Your task to perform on an android device: Open Wikipedia Image 0: 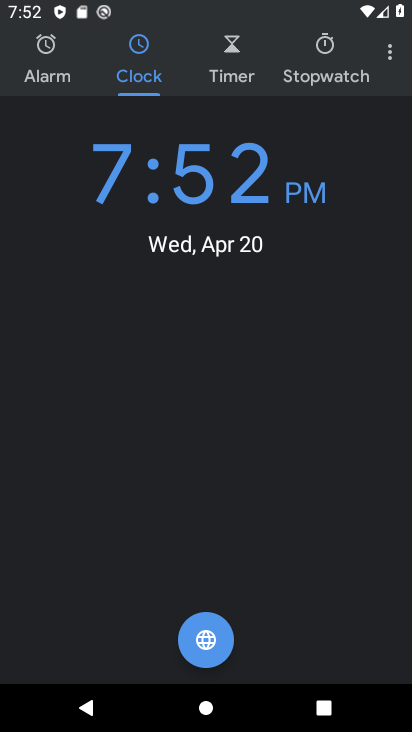
Step 0: press home button
Your task to perform on an android device: Open Wikipedia Image 1: 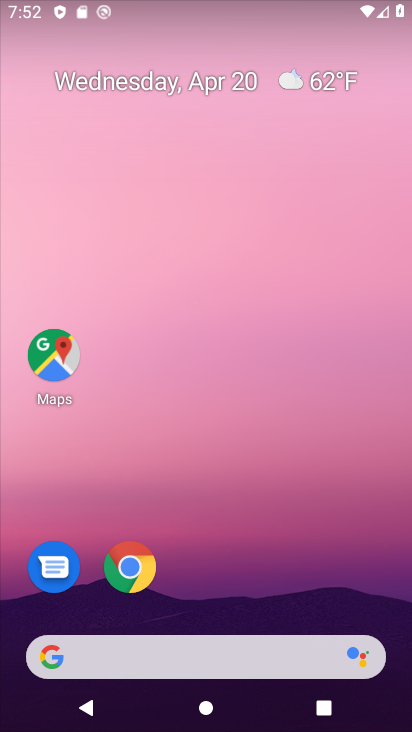
Step 1: drag from (320, 537) to (330, 111)
Your task to perform on an android device: Open Wikipedia Image 2: 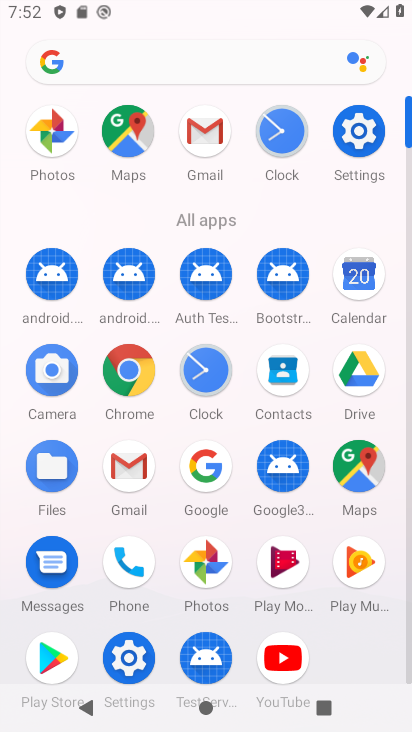
Step 2: click (116, 387)
Your task to perform on an android device: Open Wikipedia Image 3: 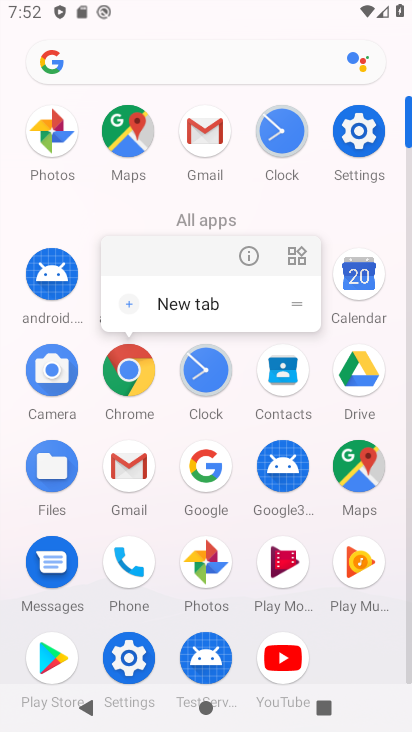
Step 3: click (117, 380)
Your task to perform on an android device: Open Wikipedia Image 4: 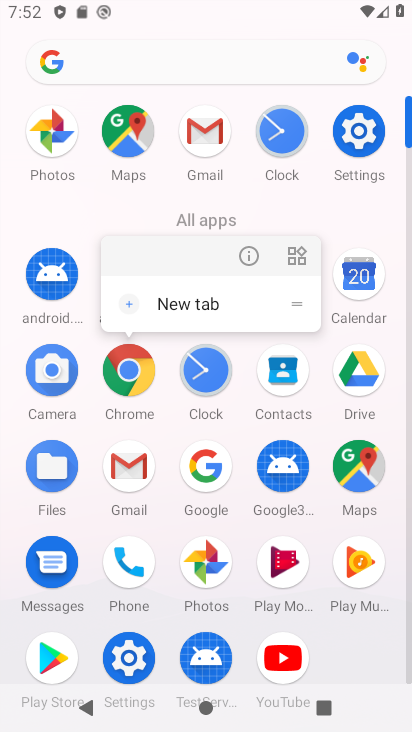
Step 4: click (118, 379)
Your task to perform on an android device: Open Wikipedia Image 5: 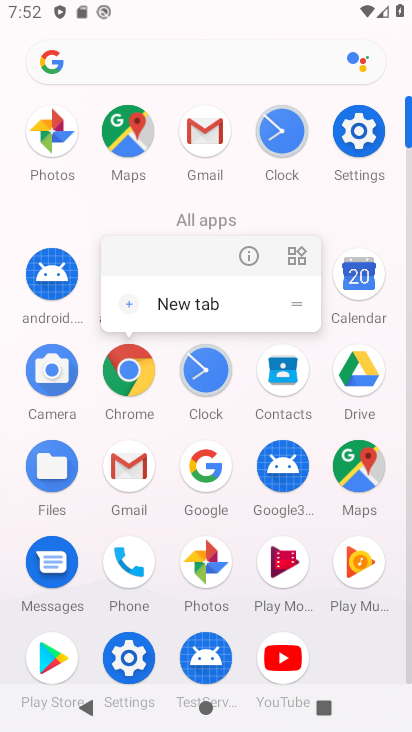
Step 5: click (118, 379)
Your task to perform on an android device: Open Wikipedia Image 6: 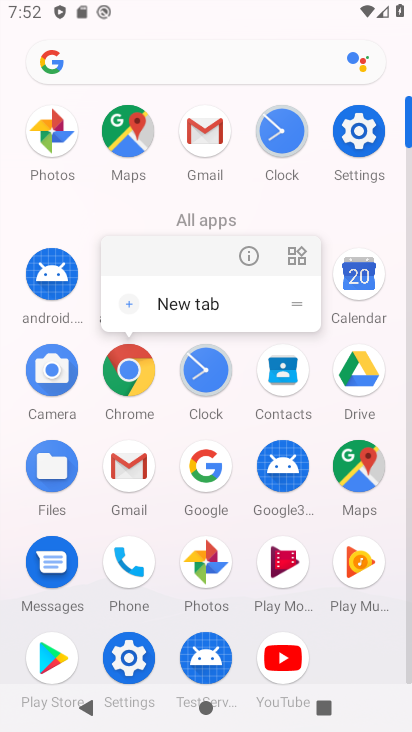
Step 6: click (118, 379)
Your task to perform on an android device: Open Wikipedia Image 7: 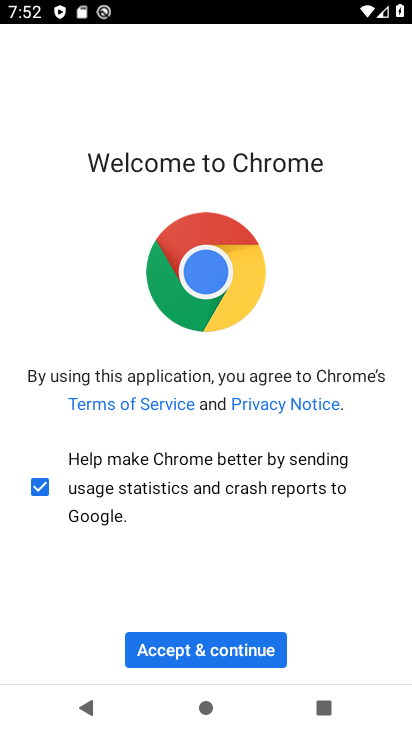
Step 7: click (256, 655)
Your task to perform on an android device: Open Wikipedia Image 8: 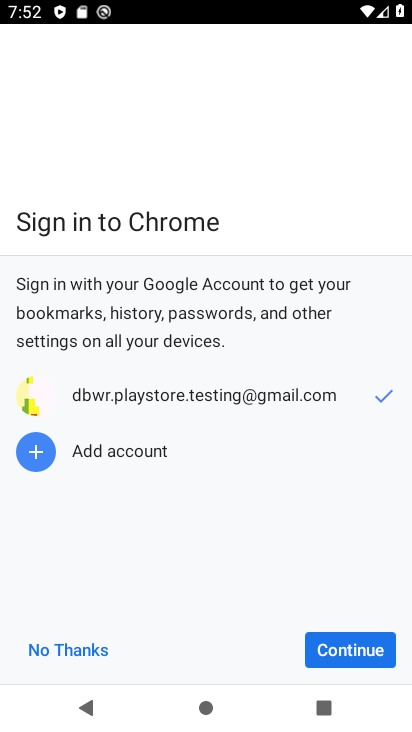
Step 8: click (55, 653)
Your task to perform on an android device: Open Wikipedia Image 9: 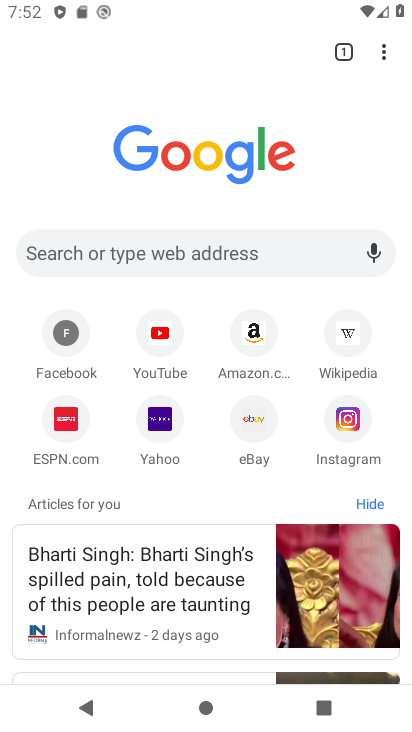
Step 9: click (351, 331)
Your task to perform on an android device: Open Wikipedia Image 10: 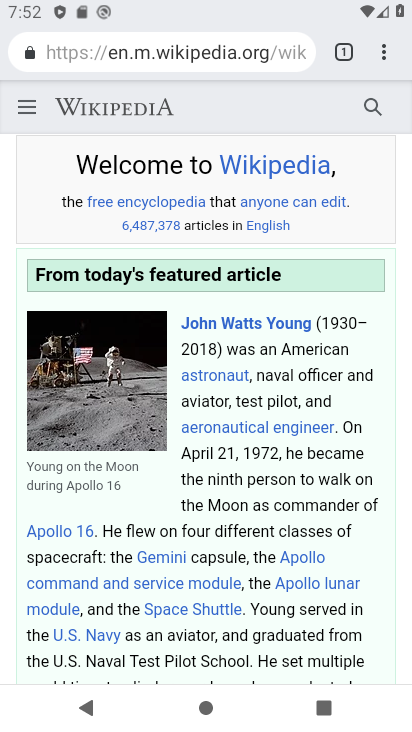
Step 10: task complete